Your task to perform on an android device: open the mobile data screen to see how much data has been used Image 0: 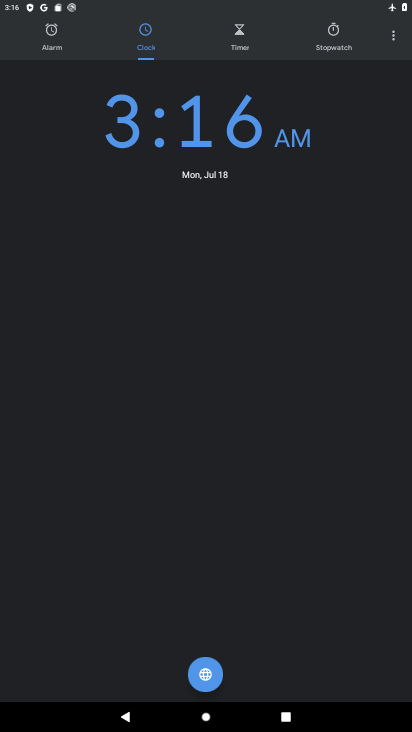
Step 0: press home button
Your task to perform on an android device: open the mobile data screen to see how much data has been used Image 1: 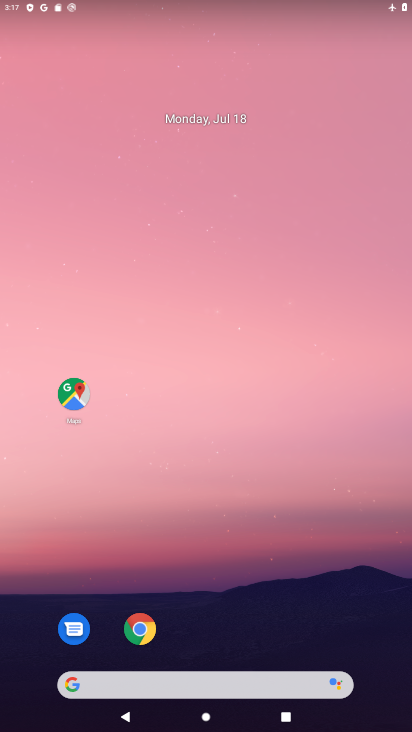
Step 1: drag from (208, 621) to (117, 48)
Your task to perform on an android device: open the mobile data screen to see how much data has been used Image 2: 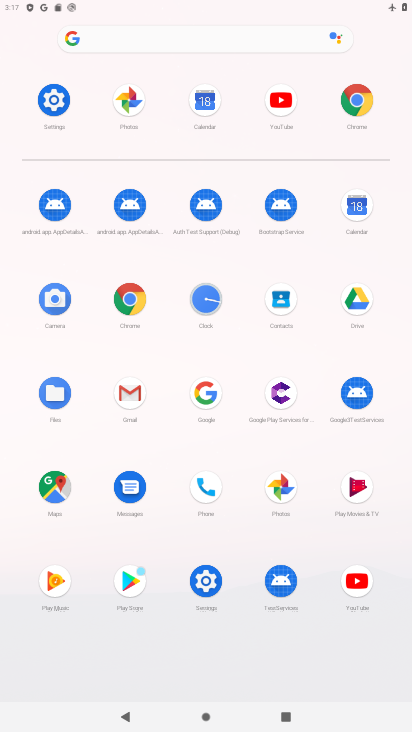
Step 2: click (210, 582)
Your task to perform on an android device: open the mobile data screen to see how much data has been used Image 3: 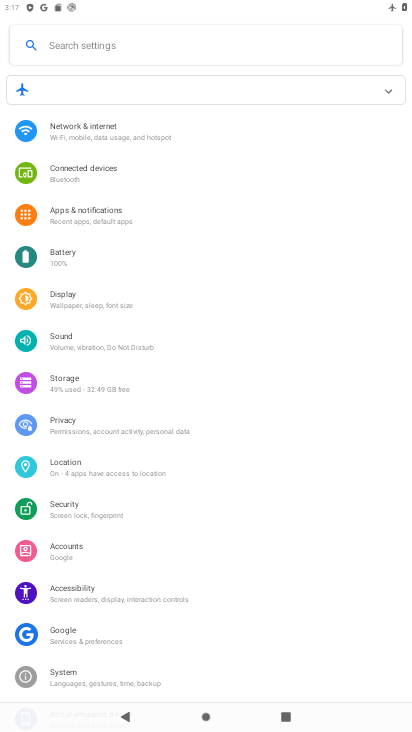
Step 3: click (89, 123)
Your task to perform on an android device: open the mobile data screen to see how much data has been used Image 4: 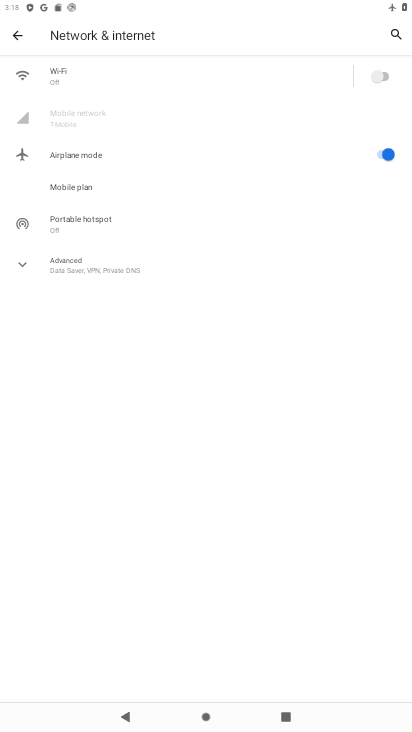
Step 4: click (90, 263)
Your task to perform on an android device: open the mobile data screen to see how much data has been used Image 5: 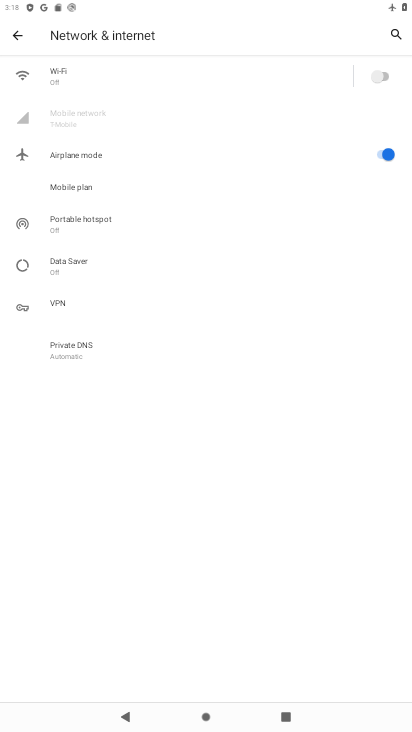
Step 5: click (102, 118)
Your task to perform on an android device: open the mobile data screen to see how much data has been used Image 6: 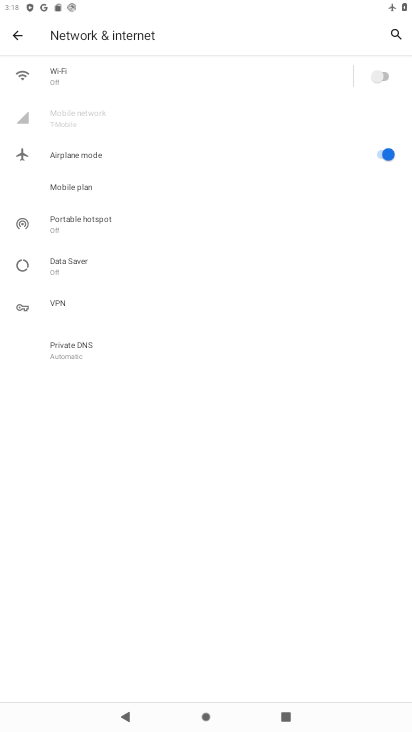
Step 6: task complete